Your task to perform on an android device: Show me the alarms in the clock app Image 0: 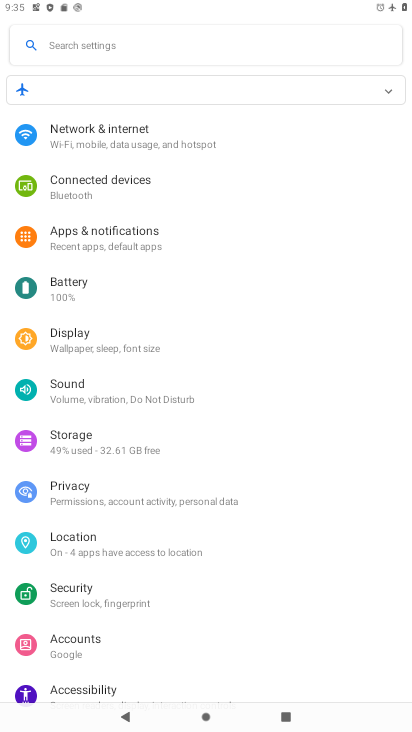
Step 0: press home button
Your task to perform on an android device: Show me the alarms in the clock app Image 1: 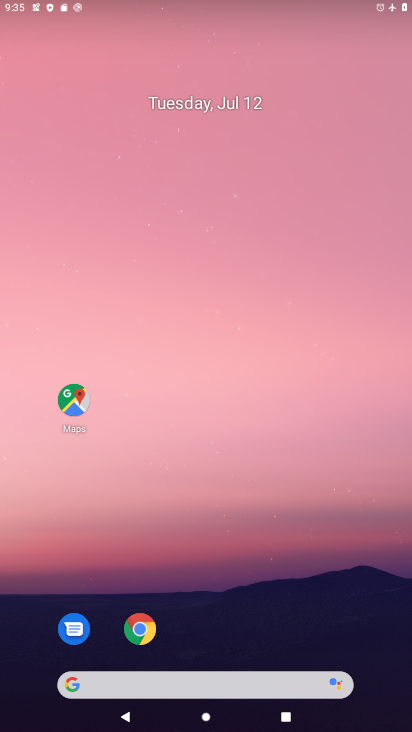
Step 1: drag from (212, 566) to (239, 291)
Your task to perform on an android device: Show me the alarms in the clock app Image 2: 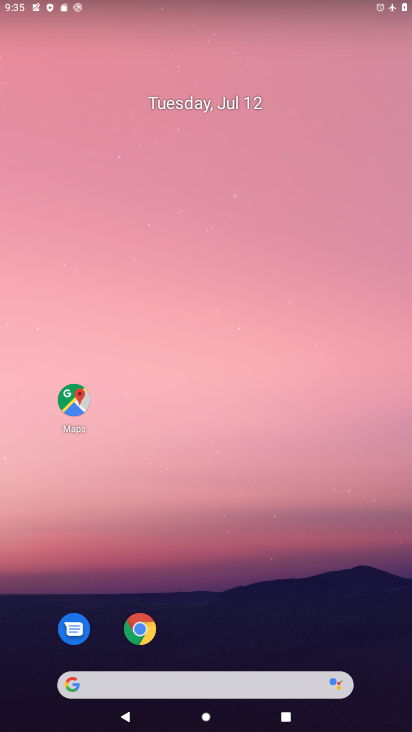
Step 2: drag from (281, 594) to (309, 281)
Your task to perform on an android device: Show me the alarms in the clock app Image 3: 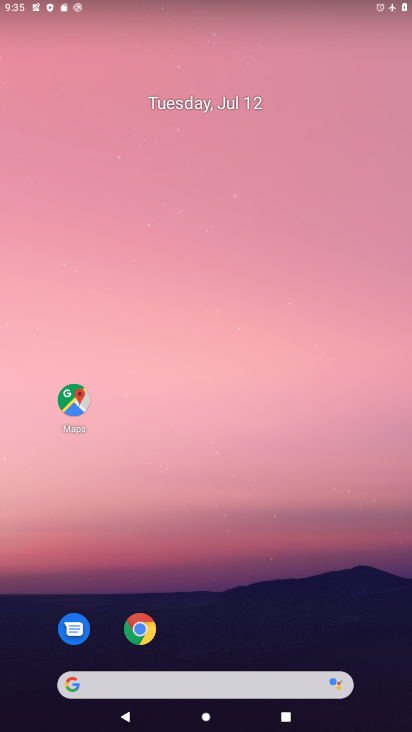
Step 3: drag from (211, 638) to (215, 246)
Your task to perform on an android device: Show me the alarms in the clock app Image 4: 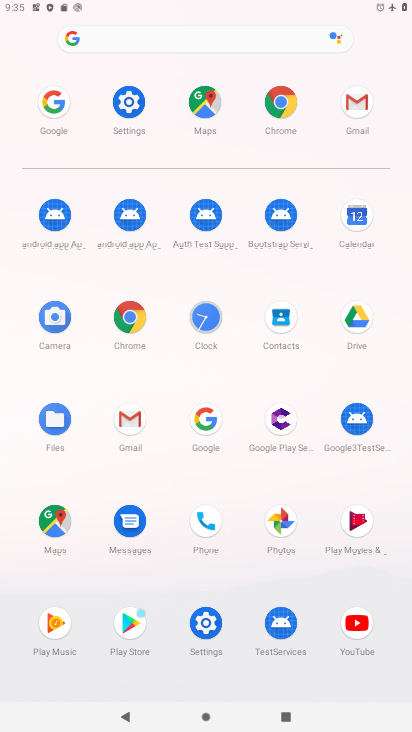
Step 4: click (209, 308)
Your task to perform on an android device: Show me the alarms in the clock app Image 5: 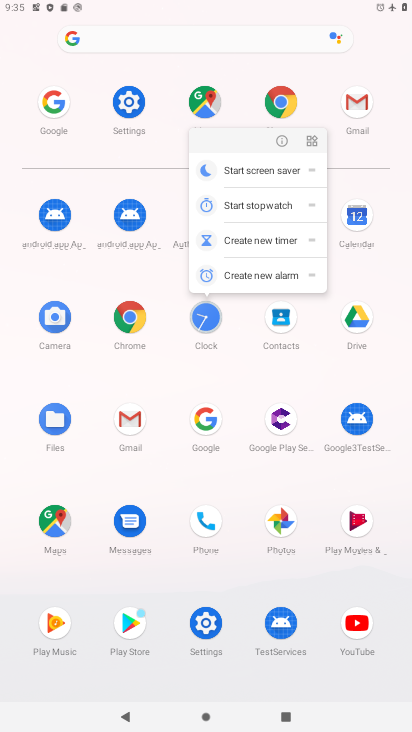
Step 5: click (207, 310)
Your task to perform on an android device: Show me the alarms in the clock app Image 6: 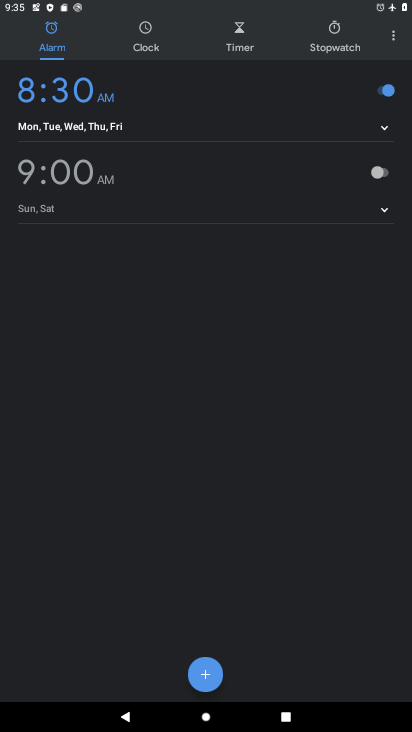
Step 6: task complete